Your task to perform on an android device: Open network settings Image 0: 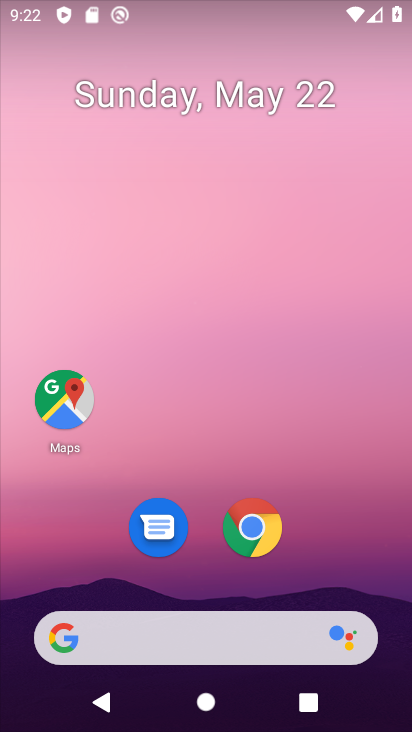
Step 0: drag from (307, 572) to (411, 396)
Your task to perform on an android device: Open network settings Image 1: 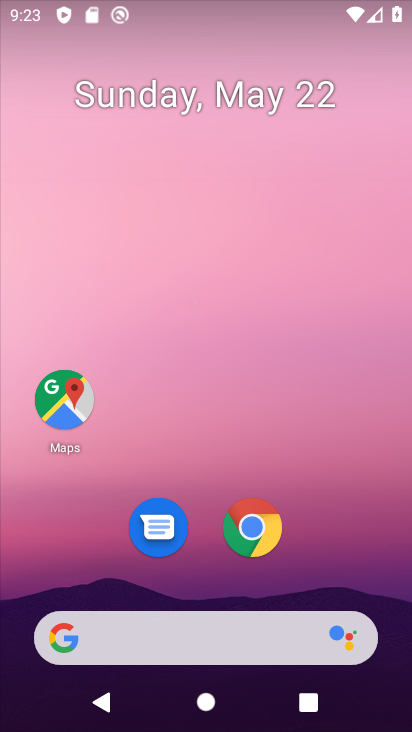
Step 1: drag from (321, 602) to (198, 11)
Your task to perform on an android device: Open network settings Image 2: 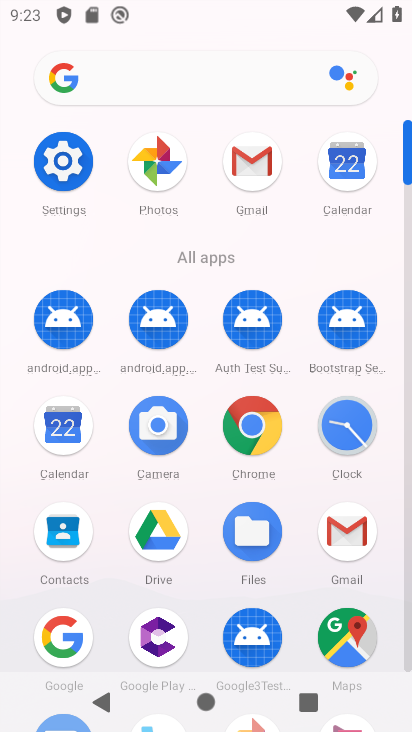
Step 2: click (56, 148)
Your task to perform on an android device: Open network settings Image 3: 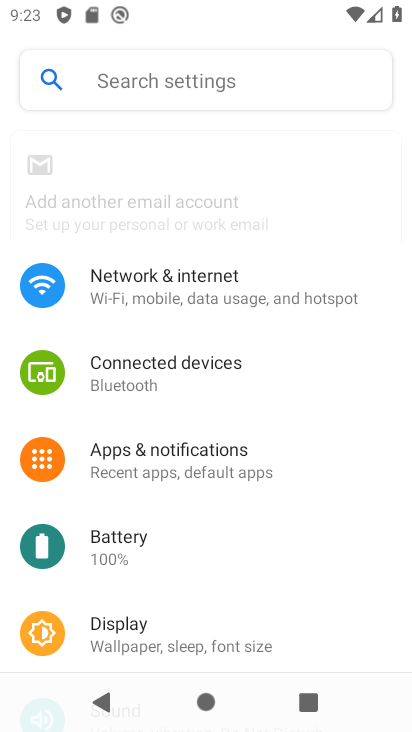
Step 3: task complete